Your task to perform on an android device: Search for sushi restaurants on Maps Image 0: 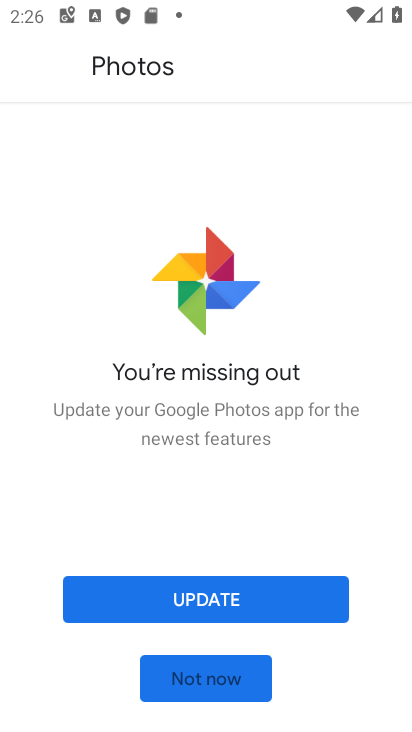
Step 0: click (206, 687)
Your task to perform on an android device: Search for sushi restaurants on Maps Image 1: 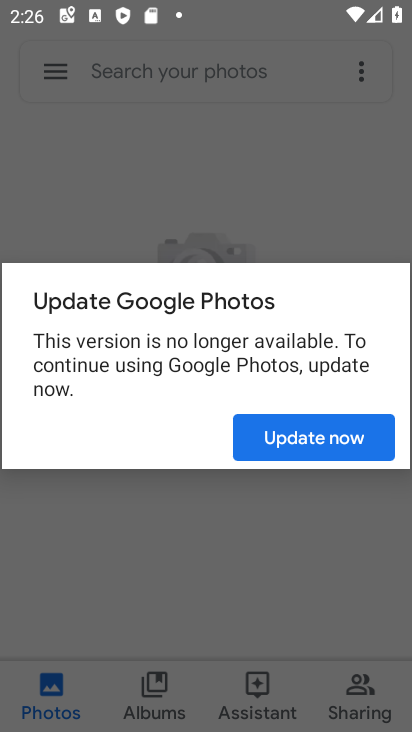
Step 1: click (342, 442)
Your task to perform on an android device: Search for sushi restaurants on Maps Image 2: 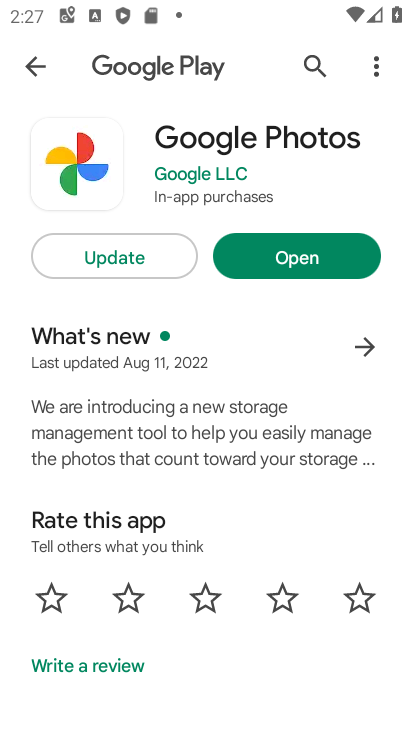
Step 2: press home button
Your task to perform on an android device: Search for sushi restaurants on Maps Image 3: 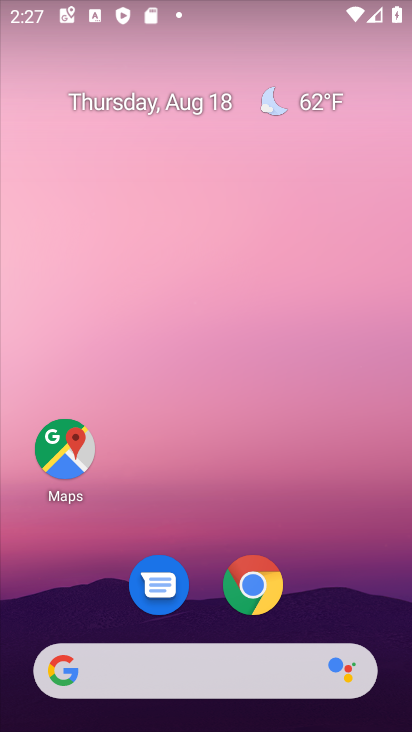
Step 3: click (67, 459)
Your task to perform on an android device: Search for sushi restaurants on Maps Image 4: 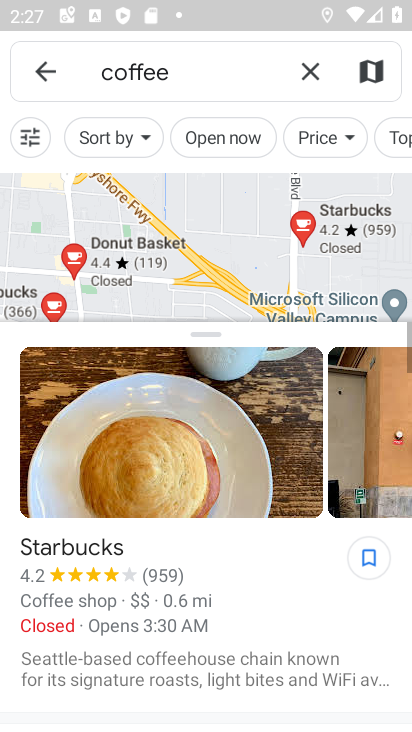
Step 4: click (51, 72)
Your task to perform on an android device: Search for sushi restaurants on Maps Image 5: 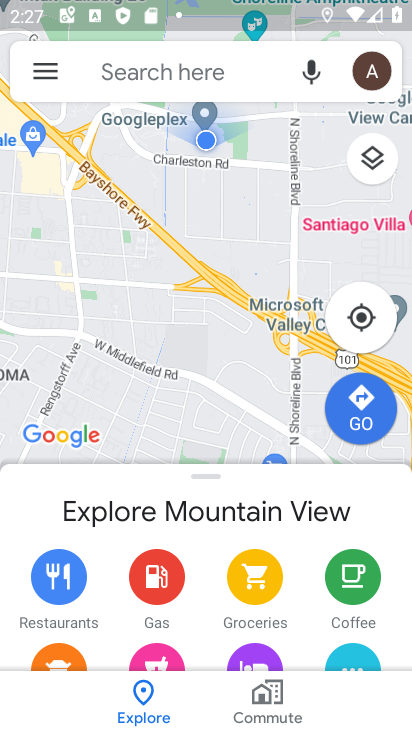
Step 5: click (126, 70)
Your task to perform on an android device: Search for sushi restaurants on Maps Image 6: 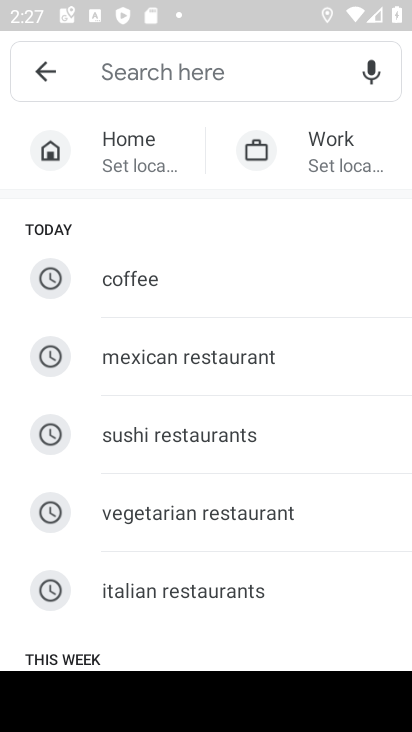
Step 6: click (162, 433)
Your task to perform on an android device: Search for sushi restaurants on Maps Image 7: 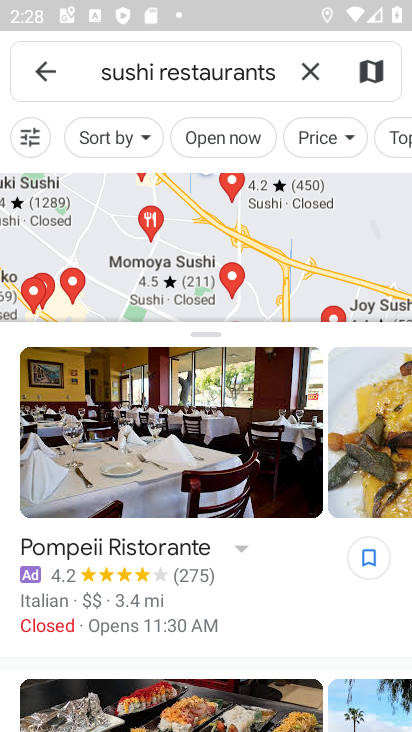
Step 7: task complete